Your task to perform on an android device: show emergency info Image 0: 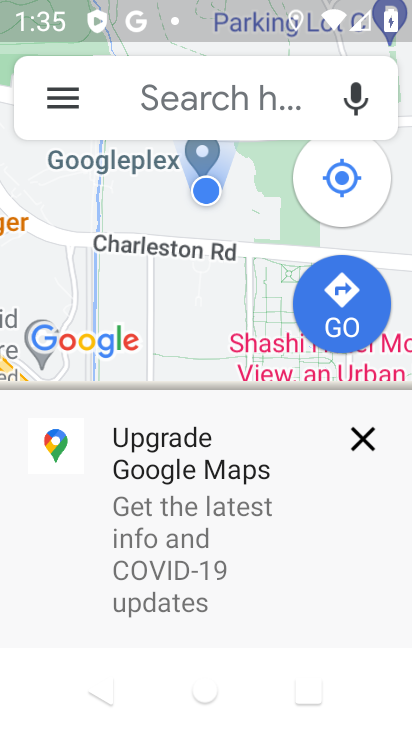
Step 0: press home button
Your task to perform on an android device: show emergency info Image 1: 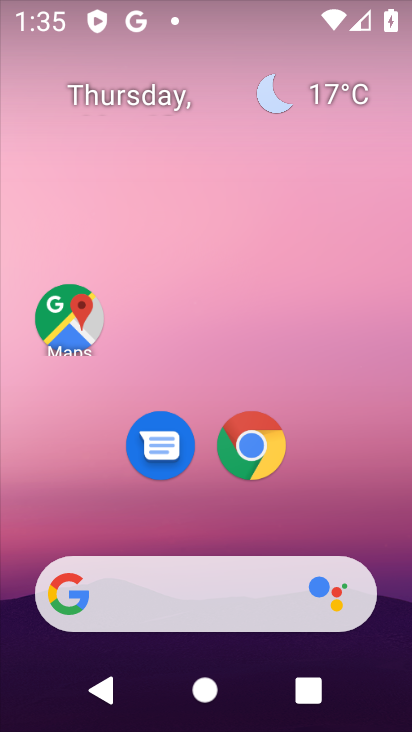
Step 1: drag from (328, 495) to (225, 94)
Your task to perform on an android device: show emergency info Image 2: 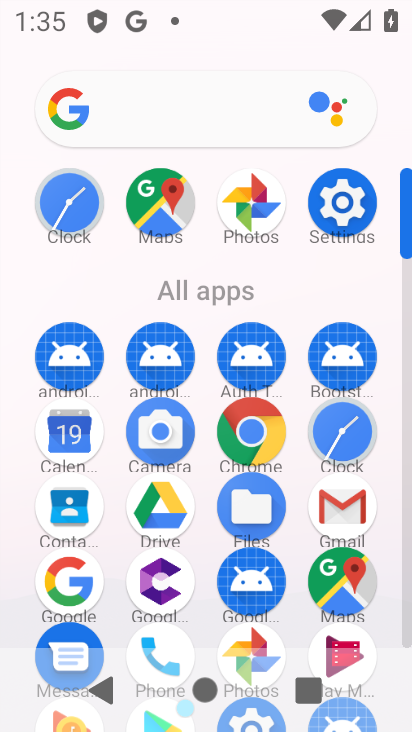
Step 2: click (339, 201)
Your task to perform on an android device: show emergency info Image 3: 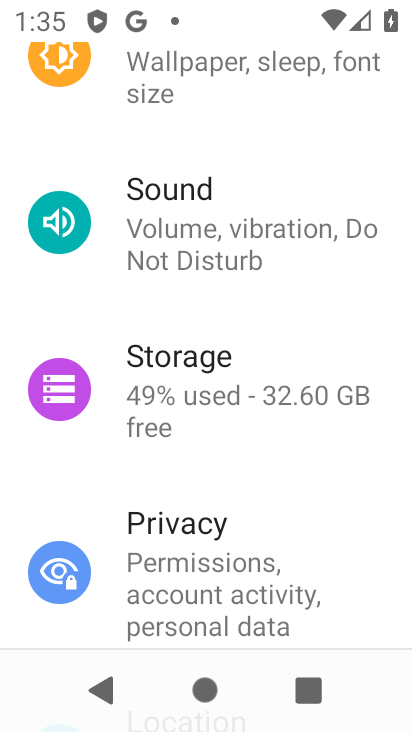
Step 3: drag from (256, 497) to (208, 137)
Your task to perform on an android device: show emergency info Image 4: 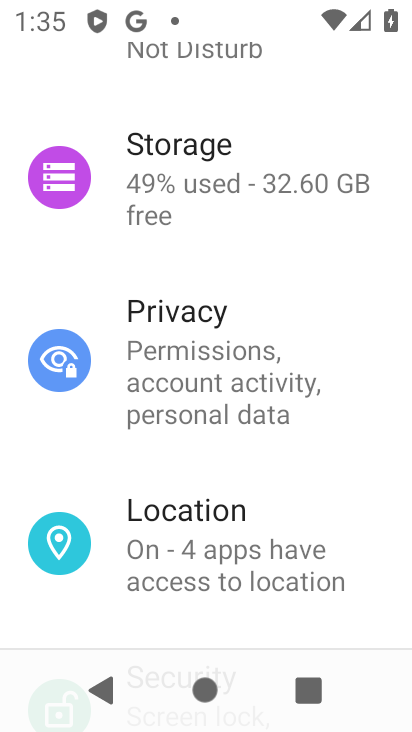
Step 4: drag from (281, 470) to (194, 69)
Your task to perform on an android device: show emergency info Image 5: 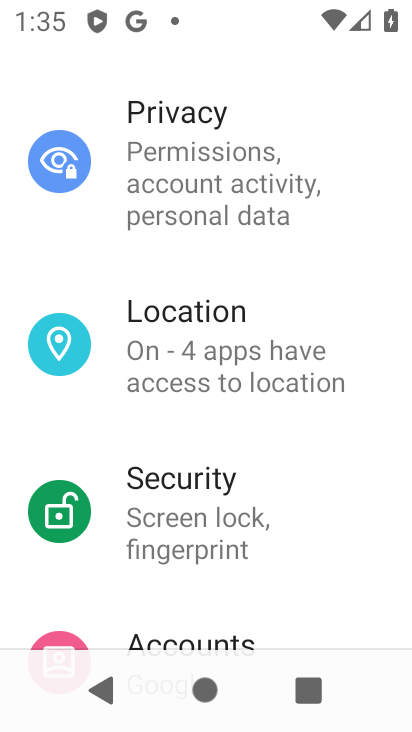
Step 5: drag from (259, 452) to (189, 9)
Your task to perform on an android device: show emergency info Image 6: 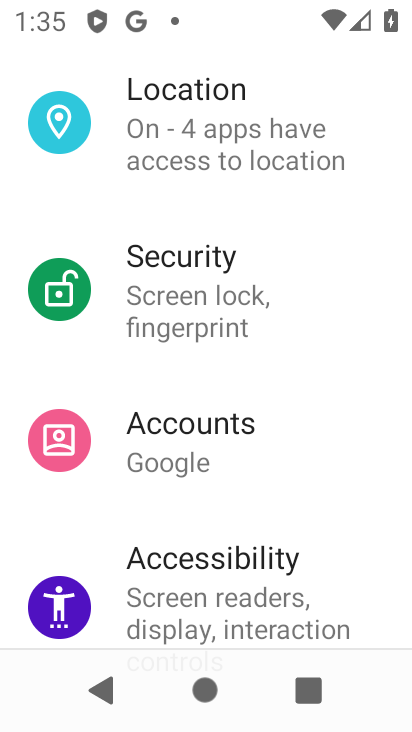
Step 6: drag from (254, 477) to (197, 180)
Your task to perform on an android device: show emergency info Image 7: 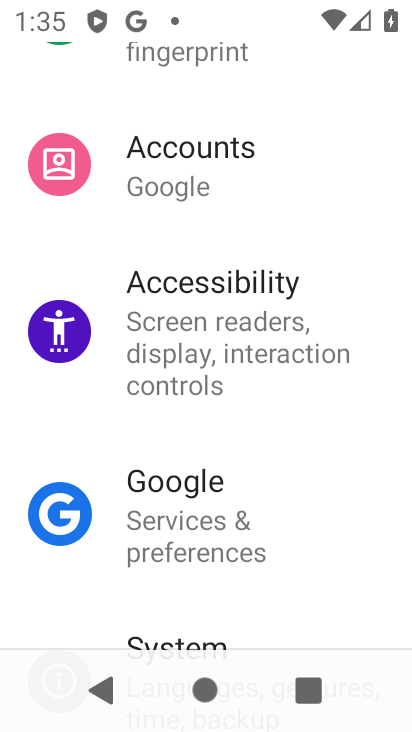
Step 7: drag from (230, 445) to (194, 29)
Your task to perform on an android device: show emergency info Image 8: 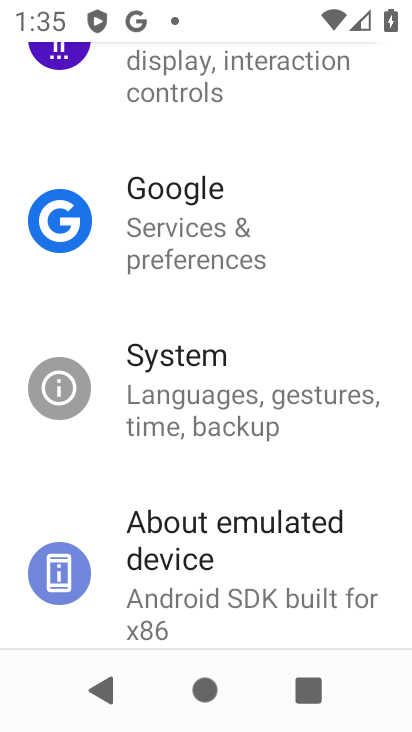
Step 8: click (156, 546)
Your task to perform on an android device: show emergency info Image 9: 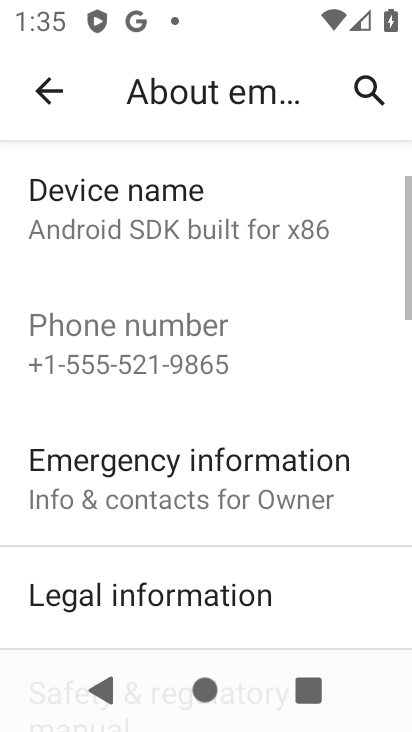
Step 9: drag from (230, 390) to (221, 187)
Your task to perform on an android device: show emergency info Image 10: 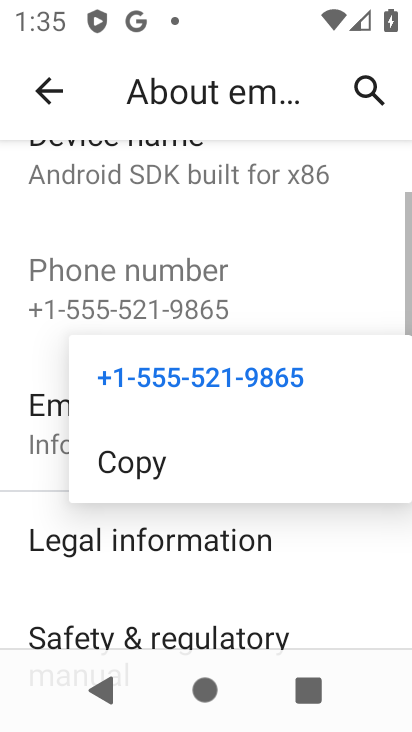
Step 10: click (327, 562)
Your task to perform on an android device: show emergency info Image 11: 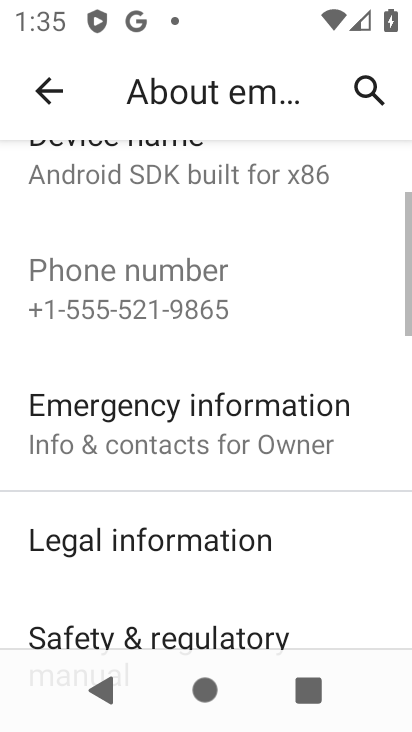
Step 11: click (168, 424)
Your task to perform on an android device: show emergency info Image 12: 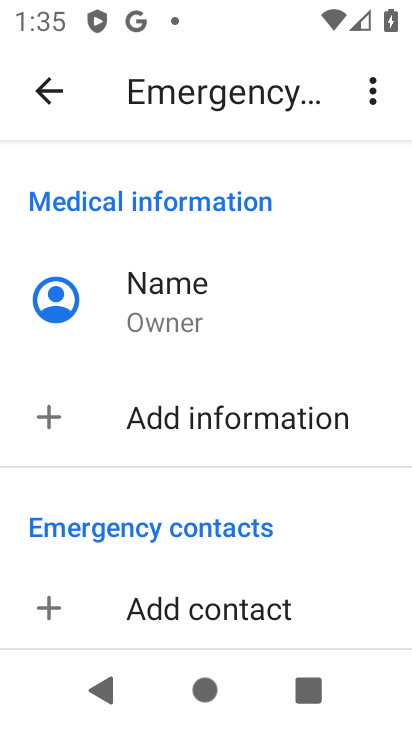
Step 12: task complete